Your task to perform on an android device: Open Yahoo.com Image 0: 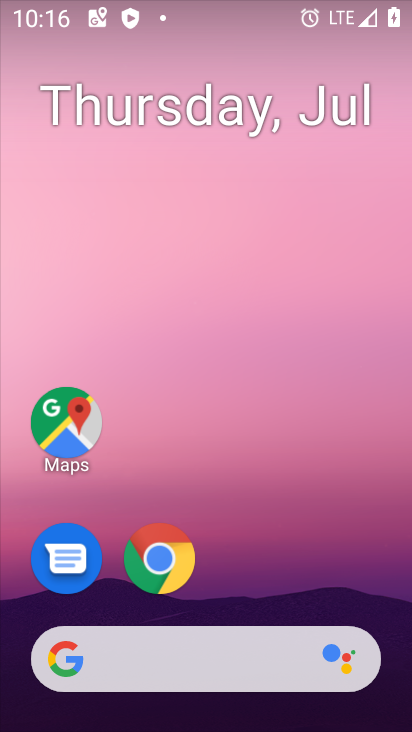
Step 0: drag from (364, 565) to (384, 85)
Your task to perform on an android device: Open Yahoo.com Image 1: 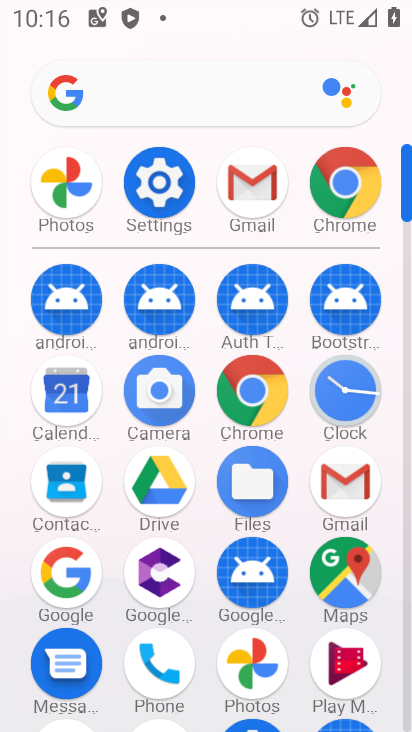
Step 1: click (259, 392)
Your task to perform on an android device: Open Yahoo.com Image 2: 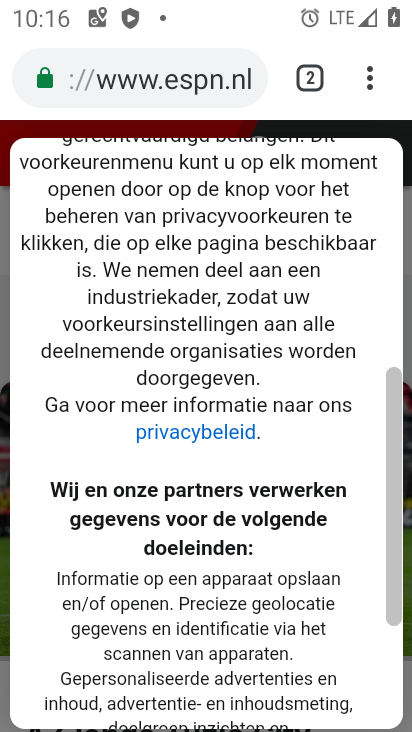
Step 2: click (202, 79)
Your task to perform on an android device: Open Yahoo.com Image 3: 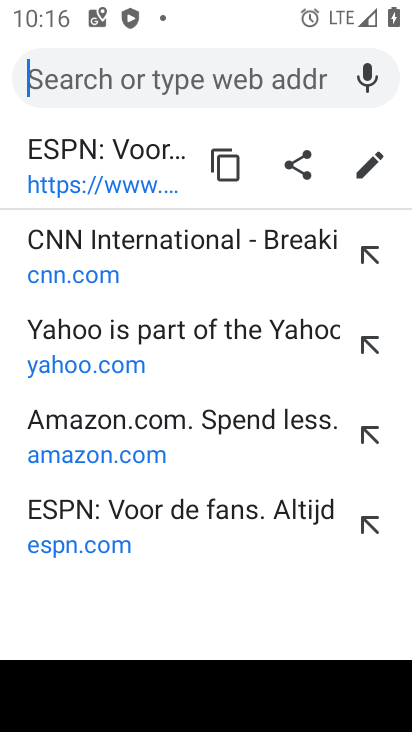
Step 3: type "yahoo.com"
Your task to perform on an android device: Open Yahoo.com Image 4: 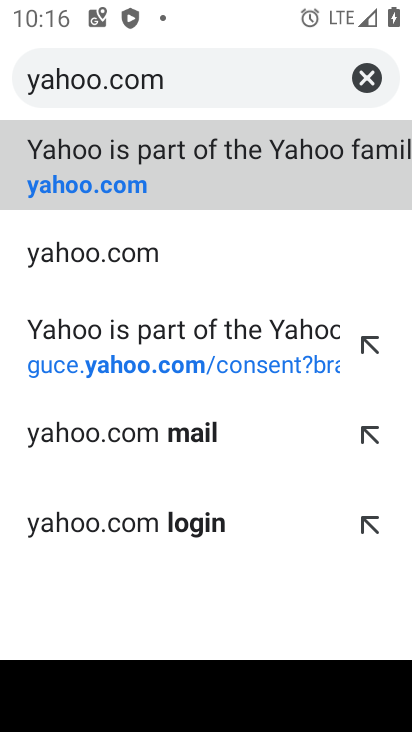
Step 4: click (246, 184)
Your task to perform on an android device: Open Yahoo.com Image 5: 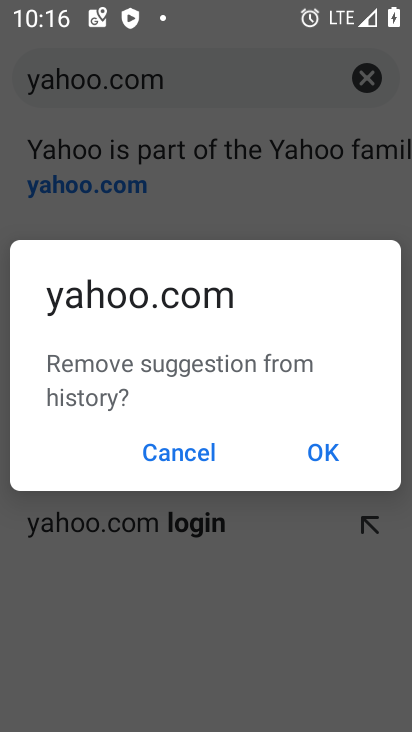
Step 5: click (323, 459)
Your task to perform on an android device: Open Yahoo.com Image 6: 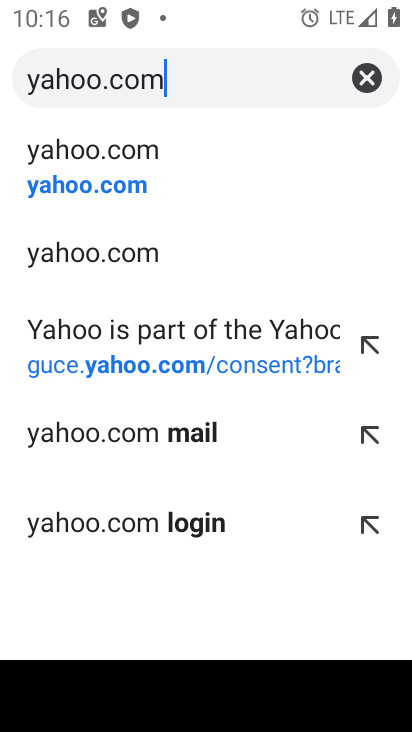
Step 6: click (126, 187)
Your task to perform on an android device: Open Yahoo.com Image 7: 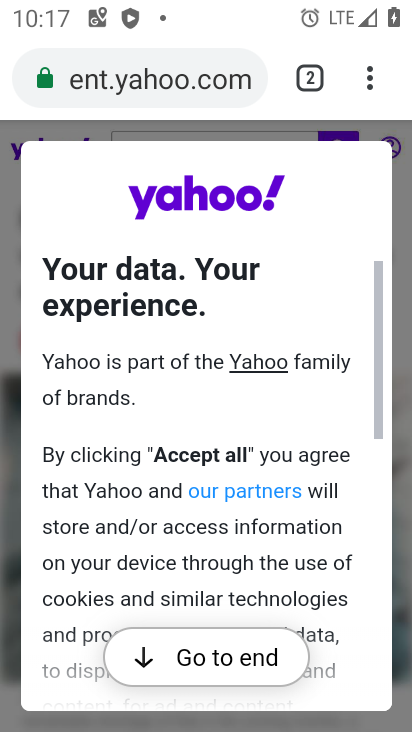
Step 7: task complete